Your task to perform on an android device: turn off picture-in-picture Image 0: 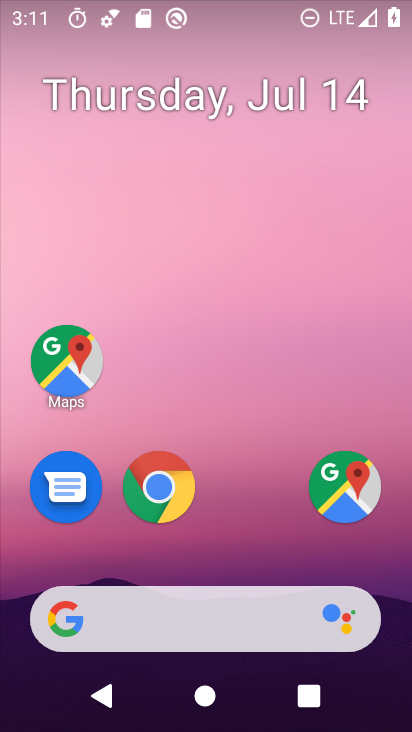
Step 0: drag from (276, 543) to (293, 220)
Your task to perform on an android device: turn off picture-in-picture Image 1: 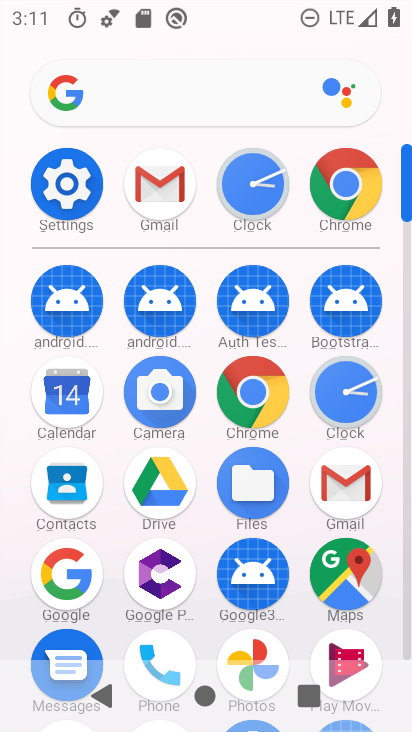
Step 1: click (71, 176)
Your task to perform on an android device: turn off picture-in-picture Image 2: 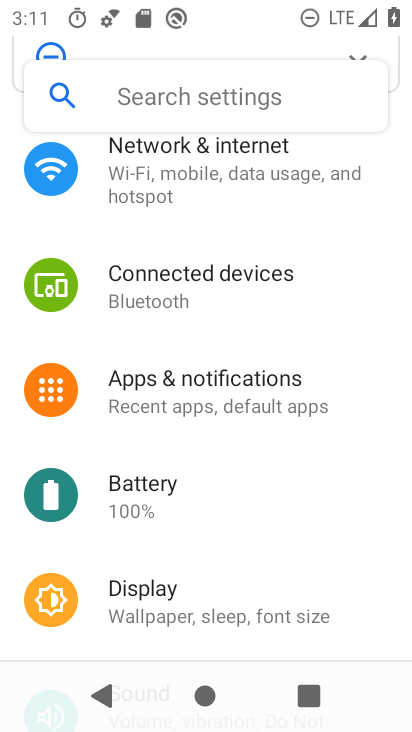
Step 2: drag from (358, 549) to (347, 396)
Your task to perform on an android device: turn off picture-in-picture Image 3: 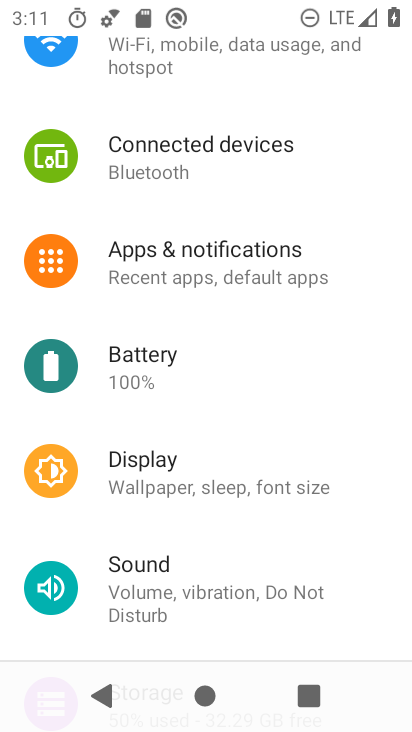
Step 3: drag from (347, 585) to (348, 396)
Your task to perform on an android device: turn off picture-in-picture Image 4: 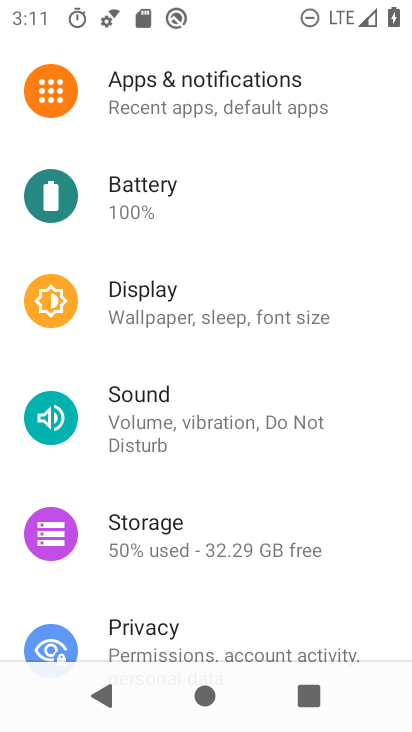
Step 4: drag from (342, 229) to (351, 324)
Your task to perform on an android device: turn off picture-in-picture Image 5: 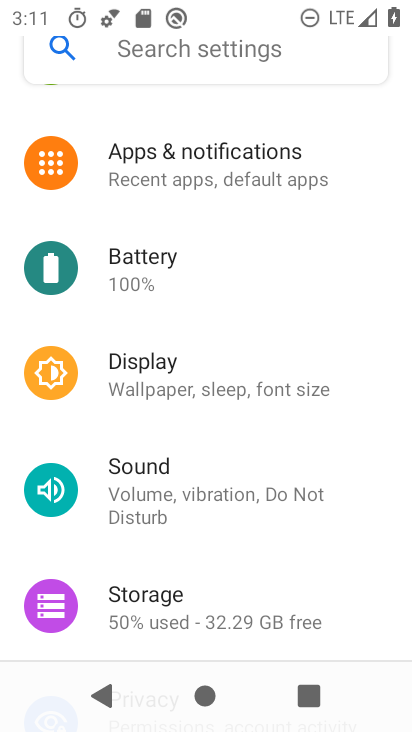
Step 5: drag from (354, 229) to (358, 367)
Your task to perform on an android device: turn off picture-in-picture Image 6: 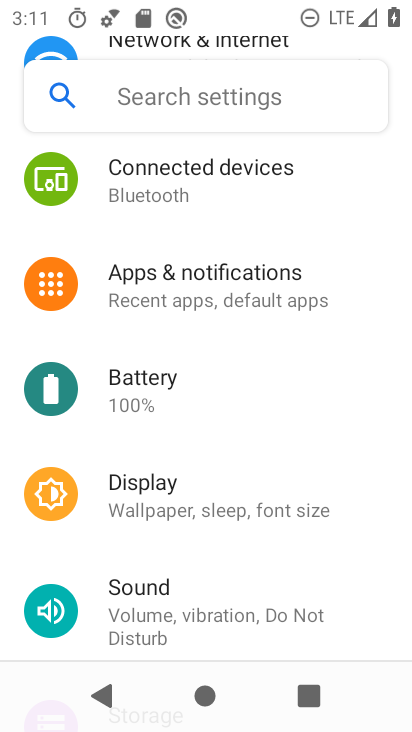
Step 6: click (276, 289)
Your task to perform on an android device: turn off picture-in-picture Image 7: 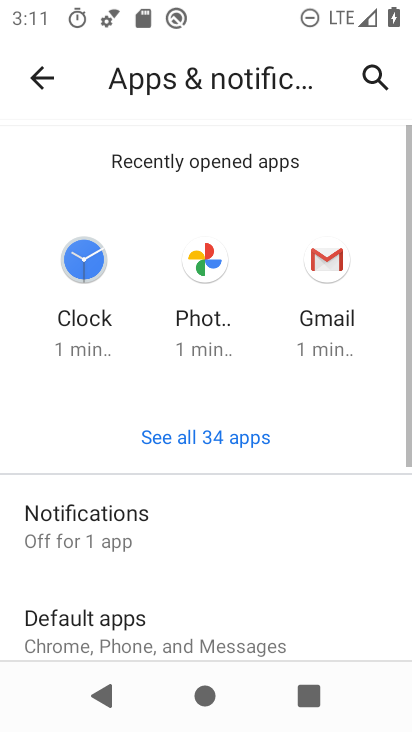
Step 7: drag from (329, 538) to (326, 421)
Your task to perform on an android device: turn off picture-in-picture Image 8: 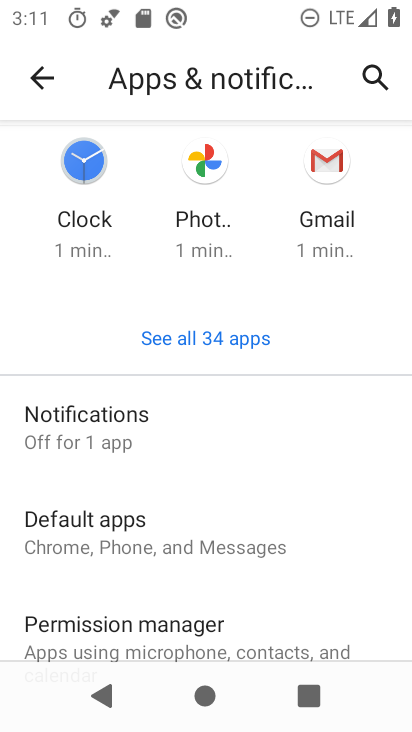
Step 8: drag from (325, 540) to (327, 465)
Your task to perform on an android device: turn off picture-in-picture Image 9: 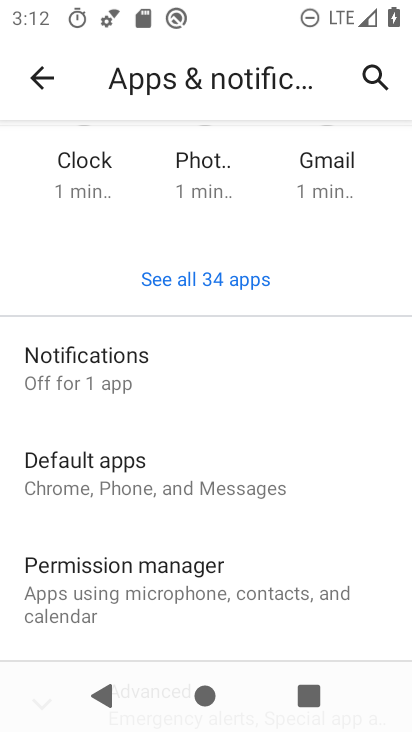
Step 9: drag from (330, 609) to (333, 465)
Your task to perform on an android device: turn off picture-in-picture Image 10: 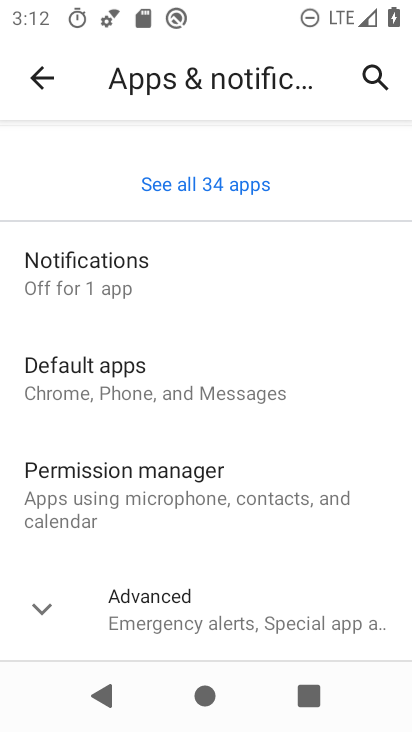
Step 10: click (281, 604)
Your task to perform on an android device: turn off picture-in-picture Image 11: 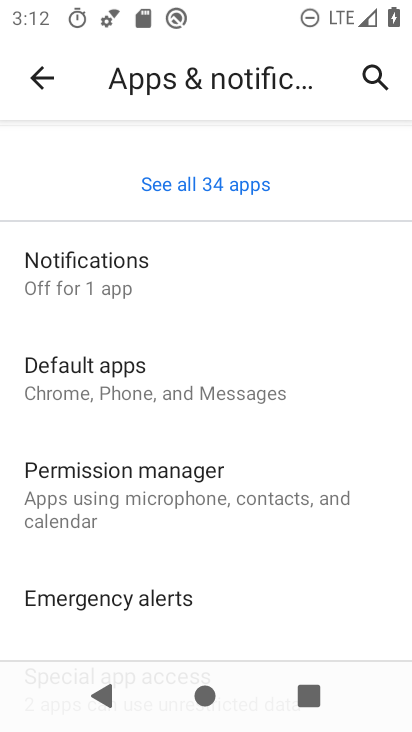
Step 11: drag from (299, 617) to (301, 527)
Your task to perform on an android device: turn off picture-in-picture Image 12: 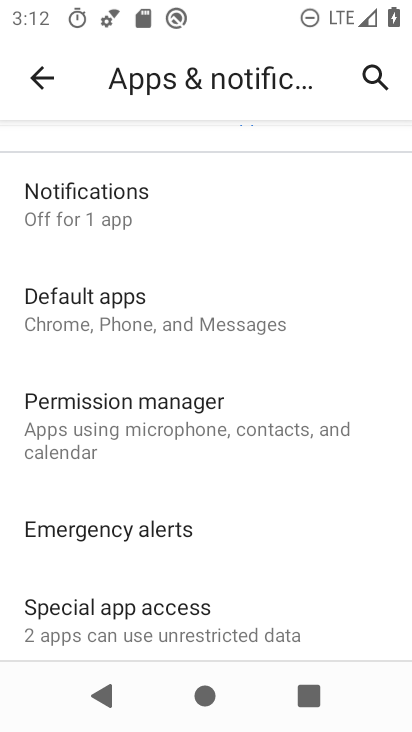
Step 12: drag from (322, 611) to (322, 536)
Your task to perform on an android device: turn off picture-in-picture Image 13: 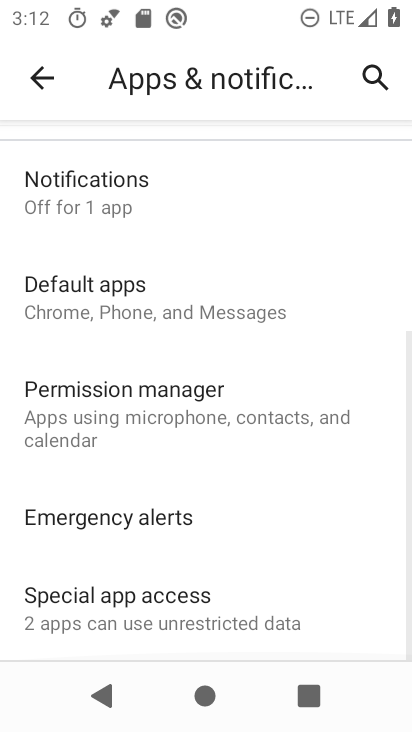
Step 13: click (273, 612)
Your task to perform on an android device: turn off picture-in-picture Image 14: 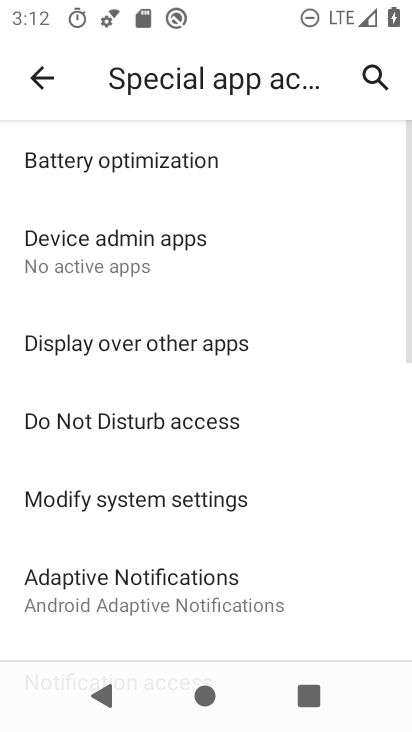
Step 14: drag from (318, 539) to (318, 447)
Your task to perform on an android device: turn off picture-in-picture Image 15: 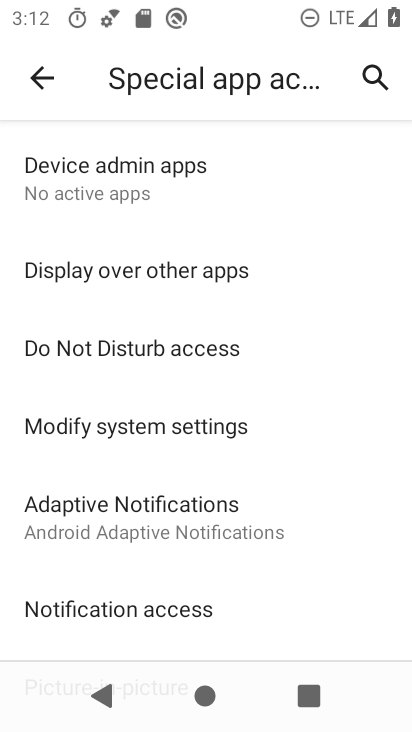
Step 15: drag from (310, 570) to (324, 407)
Your task to perform on an android device: turn off picture-in-picture Image 16: 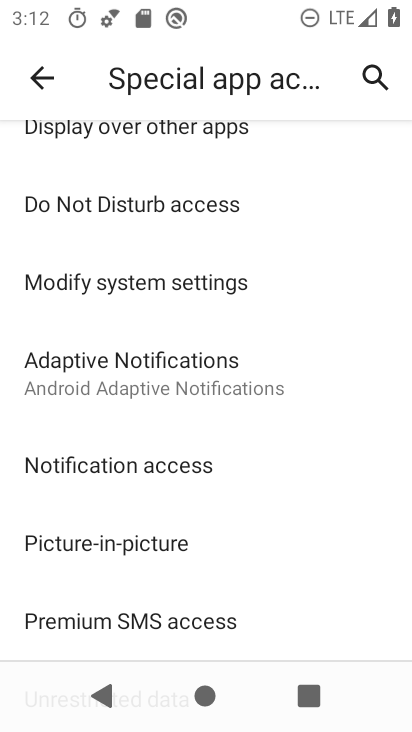
Step 16: click (189, 562)
Your task to perform on an android device: turn off picture-in-picture Image 17: 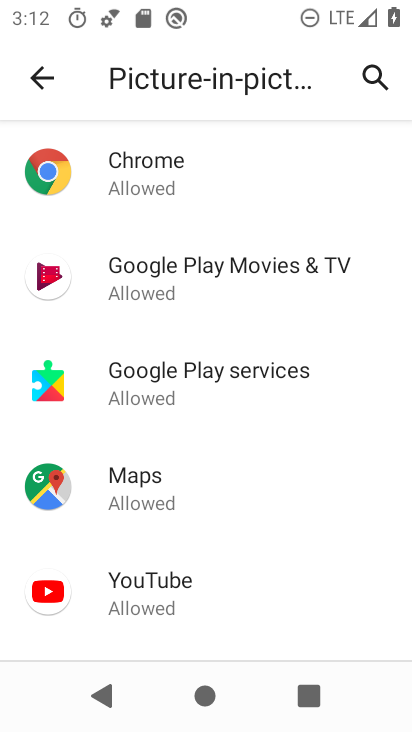
Step 17: click (172, 599)
Your task to perform on an android device: turn off picture-in-picture Image 18: 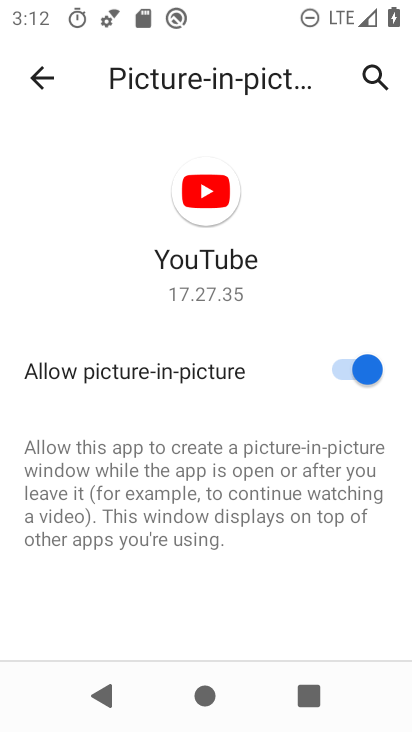
Step 18: click (368, 378)
Your task to perform on an android device: turn off picture-in-picture Image 19: 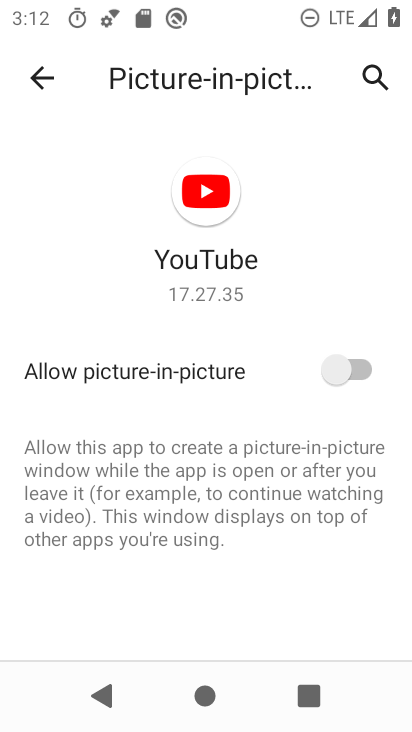
Step 19: task complete